Your task to perform on an android device: Open the Play Movies app and select the watchlist tab. Image 0: 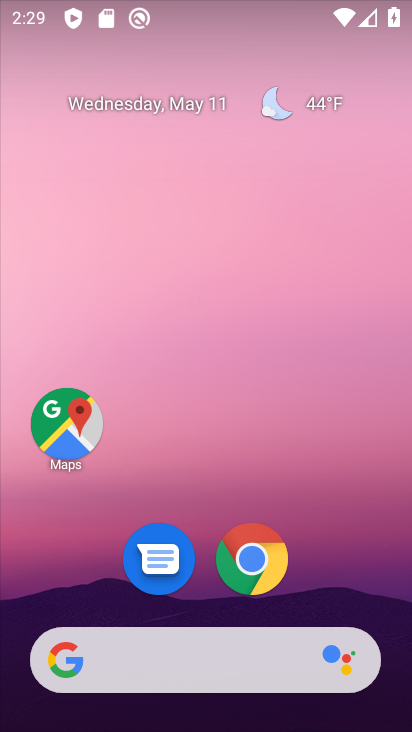
Step 0: drag from (304, 420) to (233, 114)
Your task to perform on an android device: Open the Play Movies app and select the watchlist tab. Image 1: 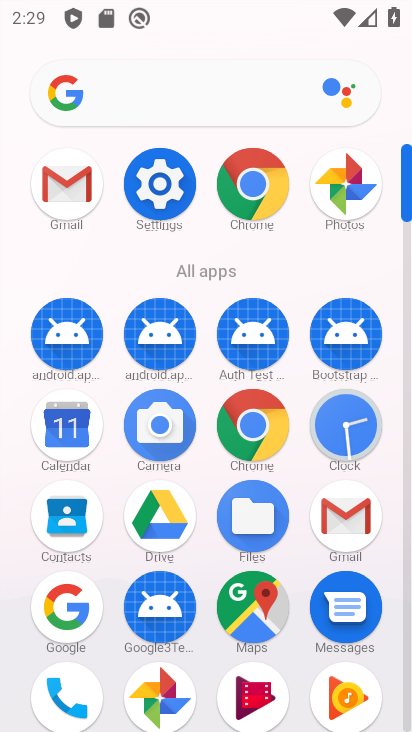
Step 1: click (257, 705)
Your task to perform on an android device: Open the Play Movies app and select the watchlist tab. Image 2: 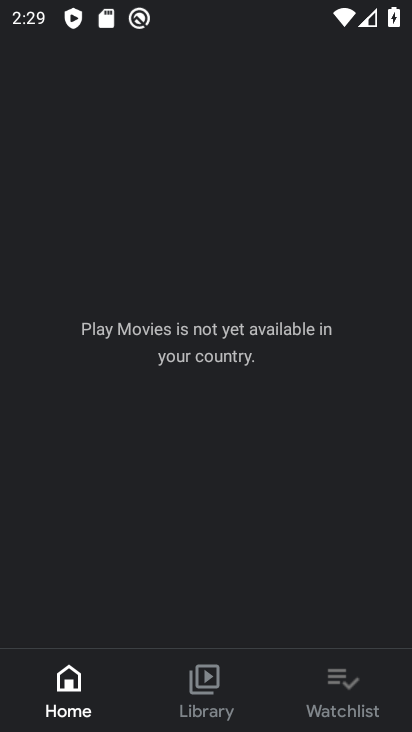
Step 2: click (355, 680)
Your task to perform on an android device: Open the Play Movies app and select the watchlist tab. Image 3: 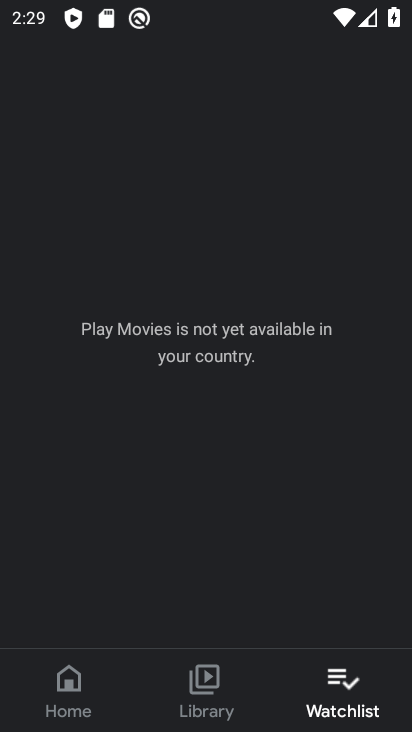
Step 3: task complete